Your task to perform on an android device: Search for coffee table on Crate & Barrel Image 0: 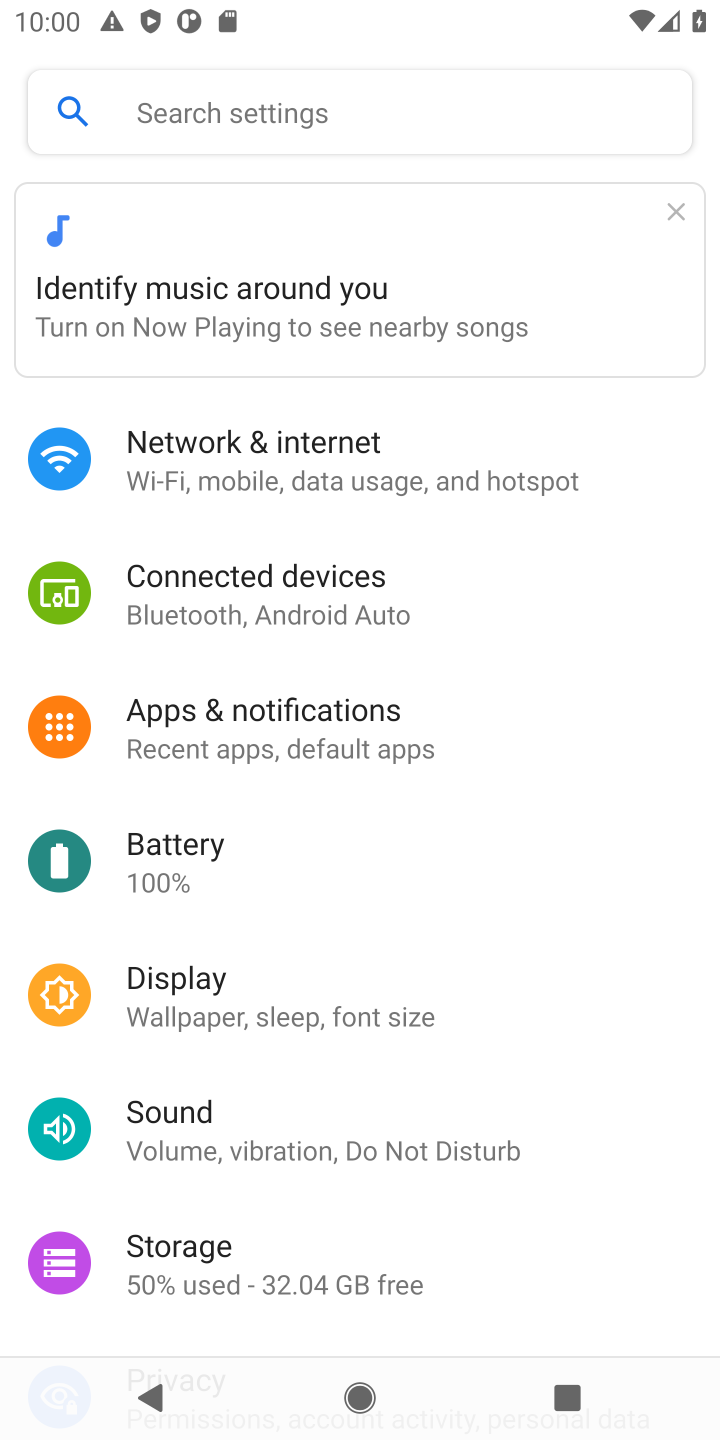
Step 0: press home button
Your task to perform on an android device: Search for coffee table on Crate & Barrel Image 1: 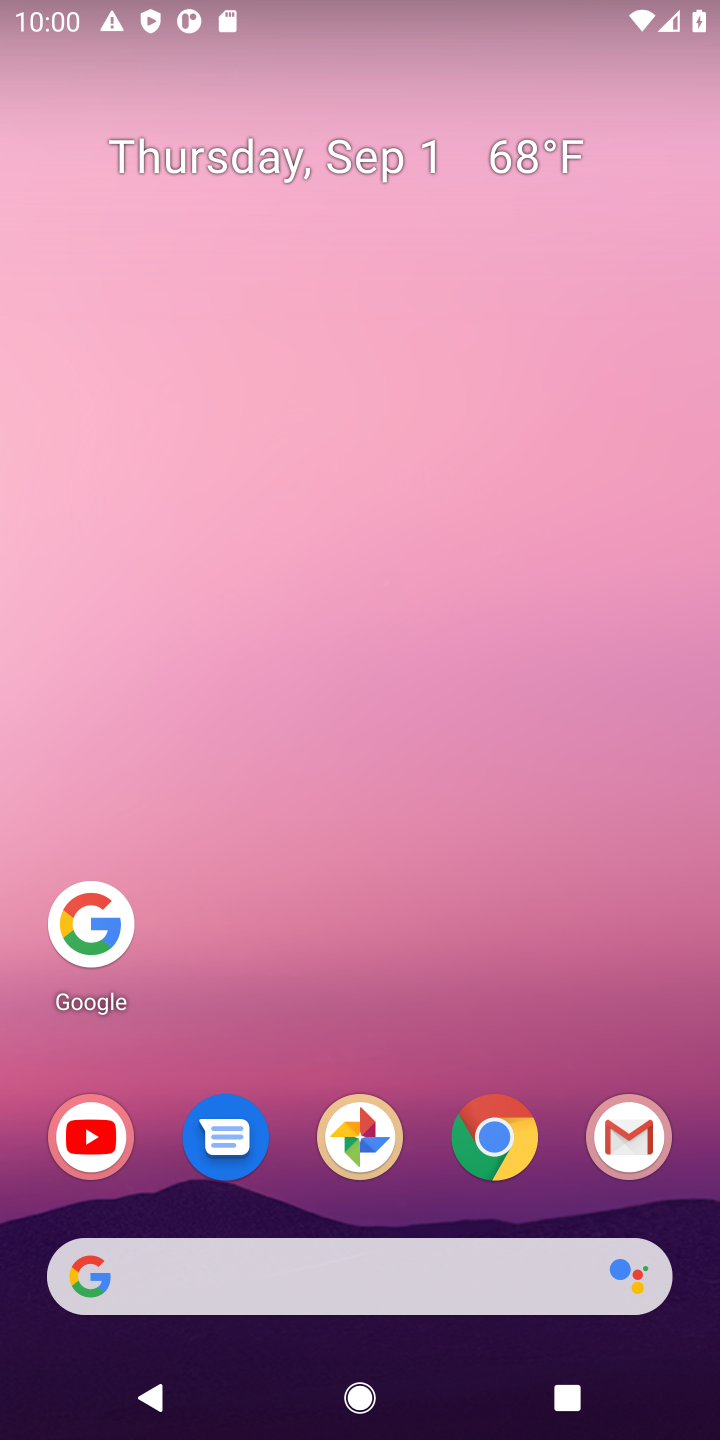
Step 1: click (99, 922)
Your task to perform on an android device: Search for coffee table on Crate & Barrel Image 2: 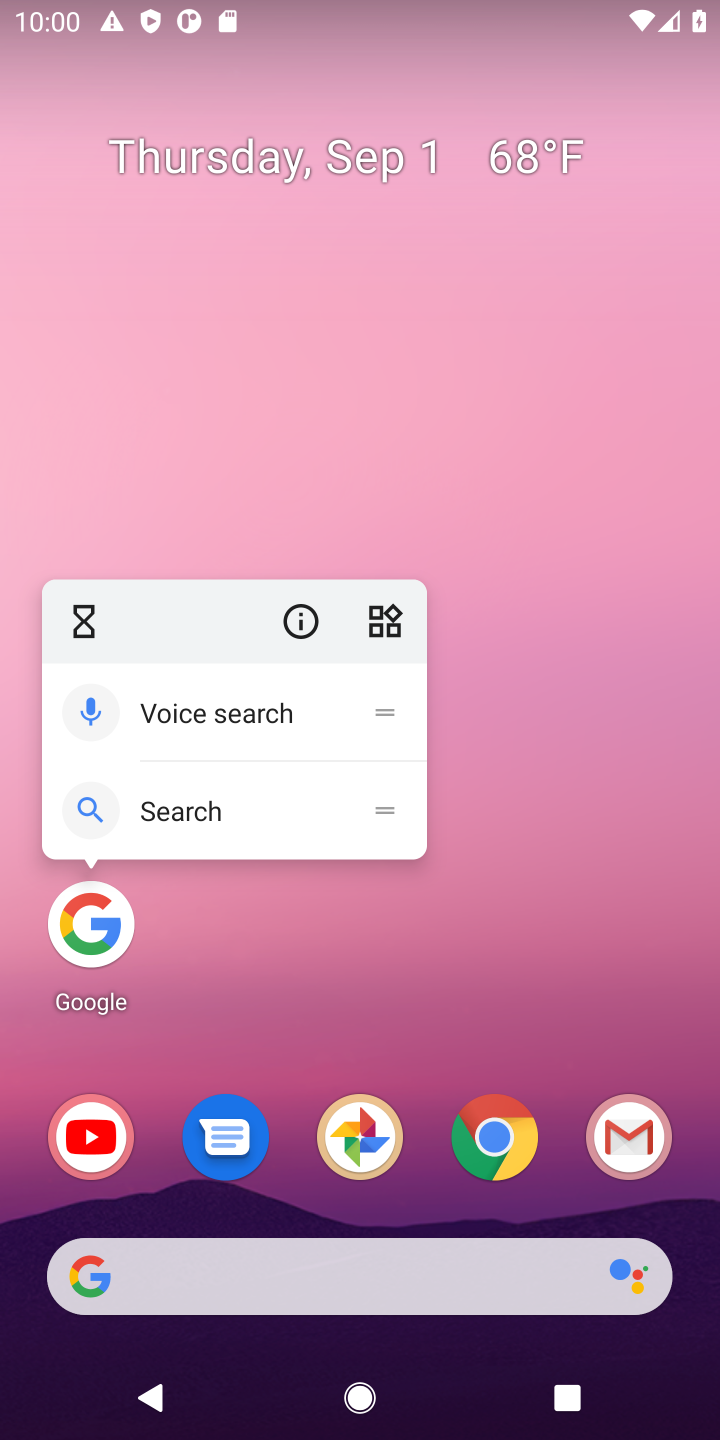
Step 2: click (79, 927)
Your task to perform on an android device: Search for coffee table on Crate & Barrel Image 3: 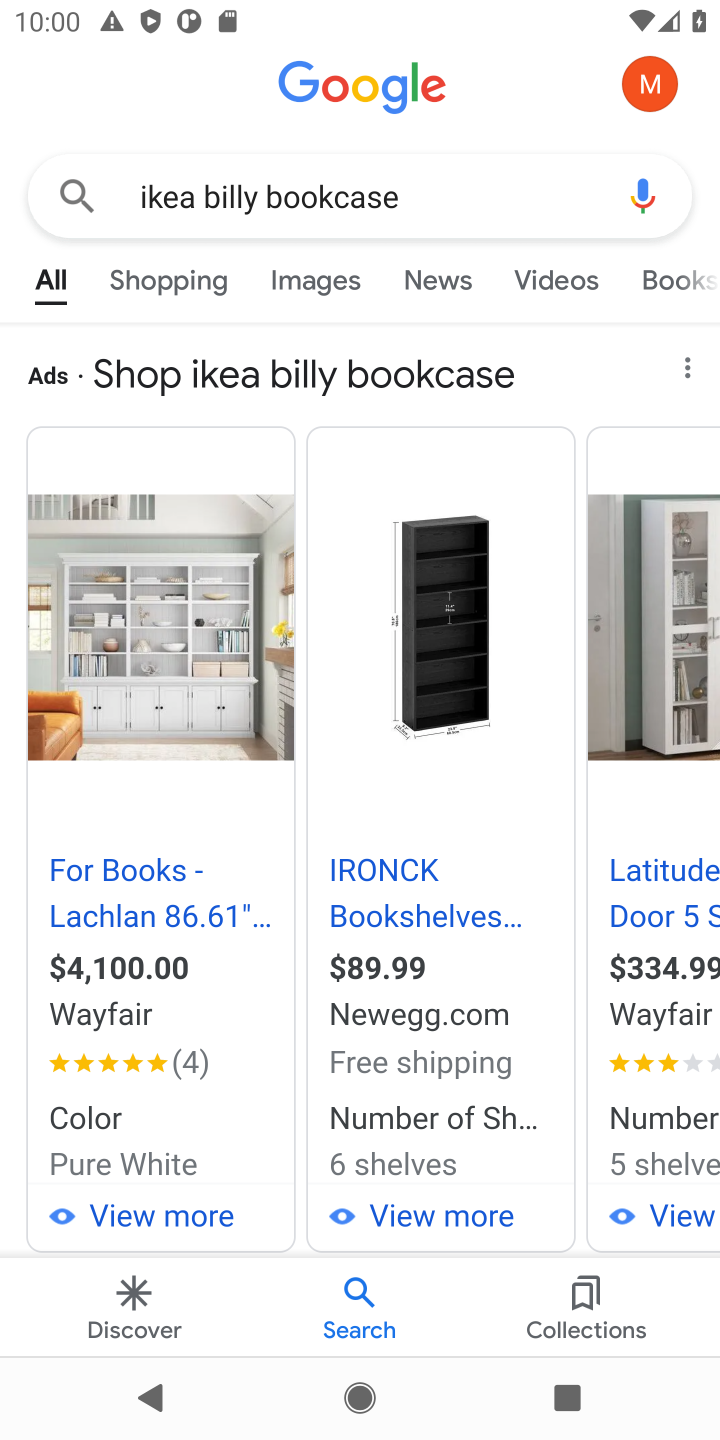
Step 3: click (441, 194)
Your task to perform on an android device: Search for coffee table on Crate & Barrel Image 4: 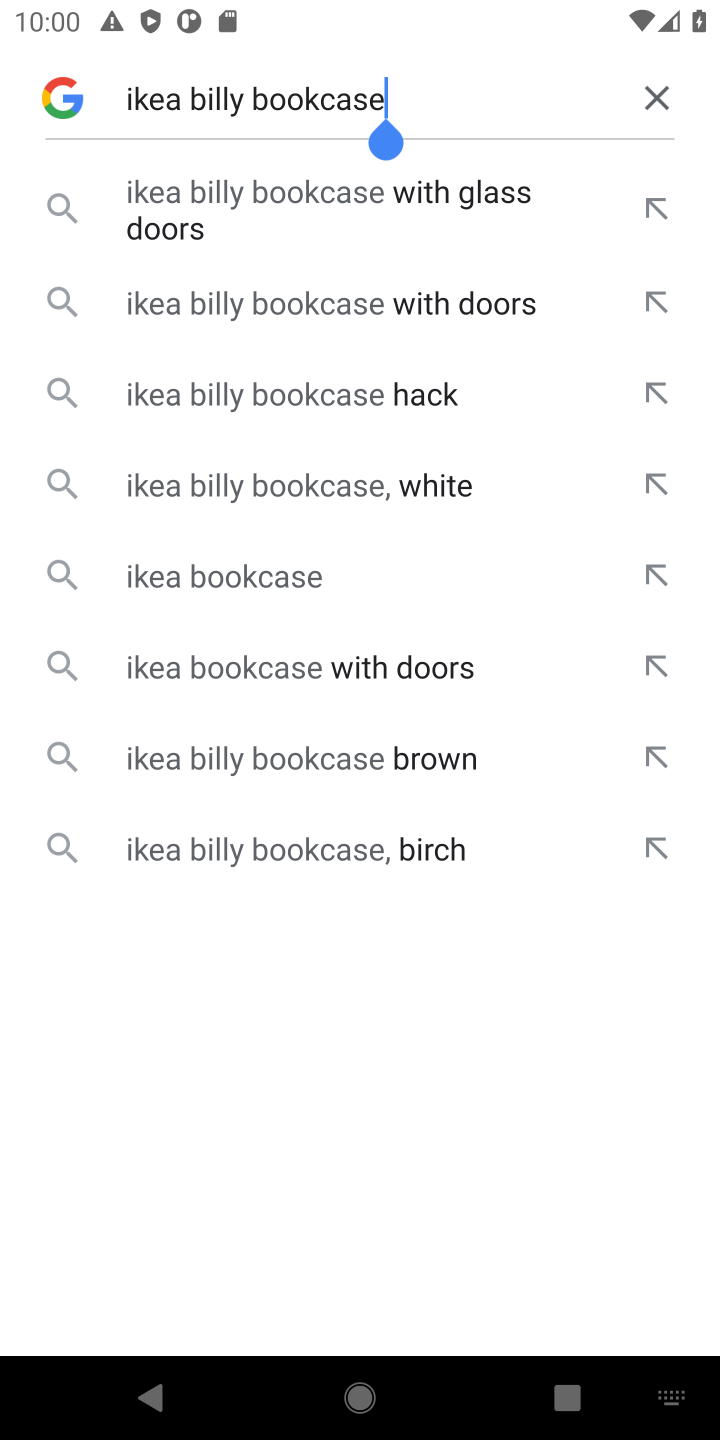
Step 4: click (656, 88)
Your task to perform on an android device: Search for coffee table on Crate & Barrel Image 5: 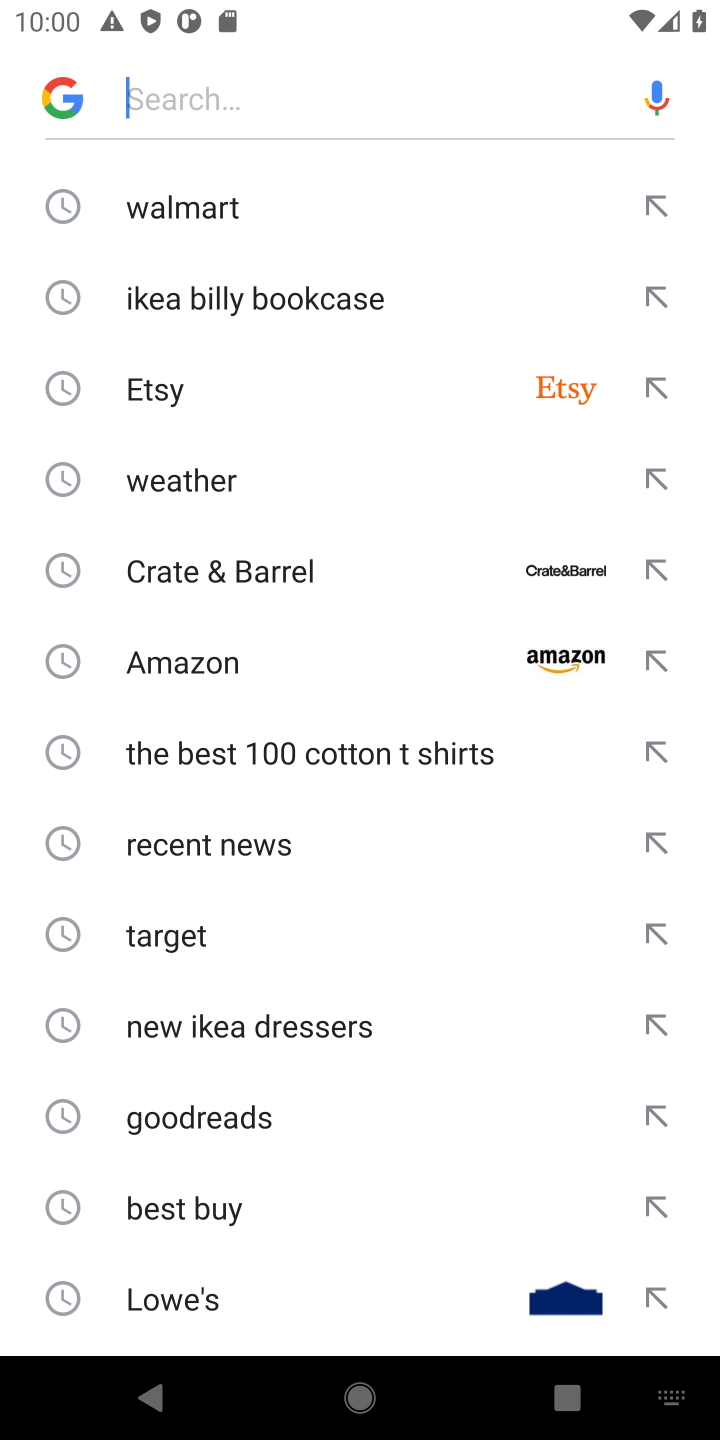
Step 5: click (189, 562)
Your task to perform on an android device: Search for coffee table on Crate & Barrel Image 6: 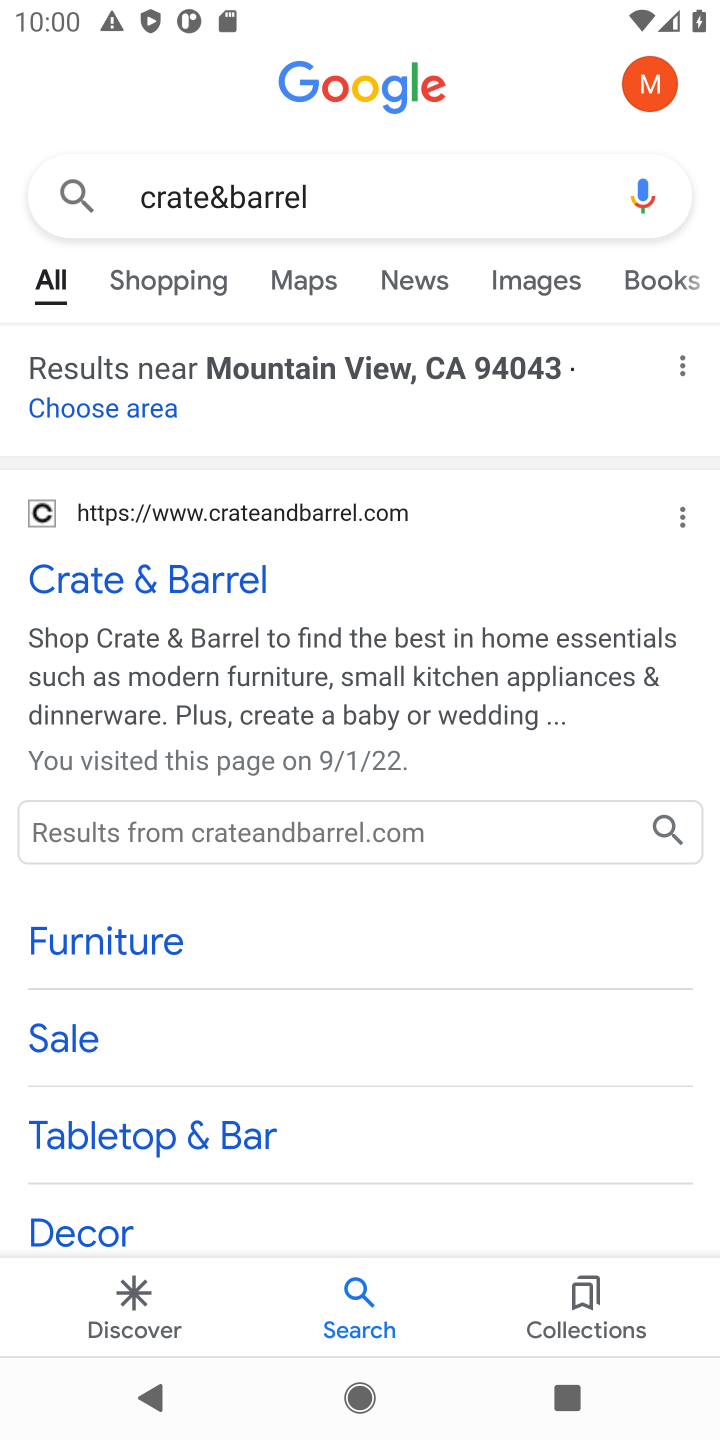
Step 6: click (144, 575)
Your task to perform on an android device: Search for coffee table on Crate & Barrel Image 7: 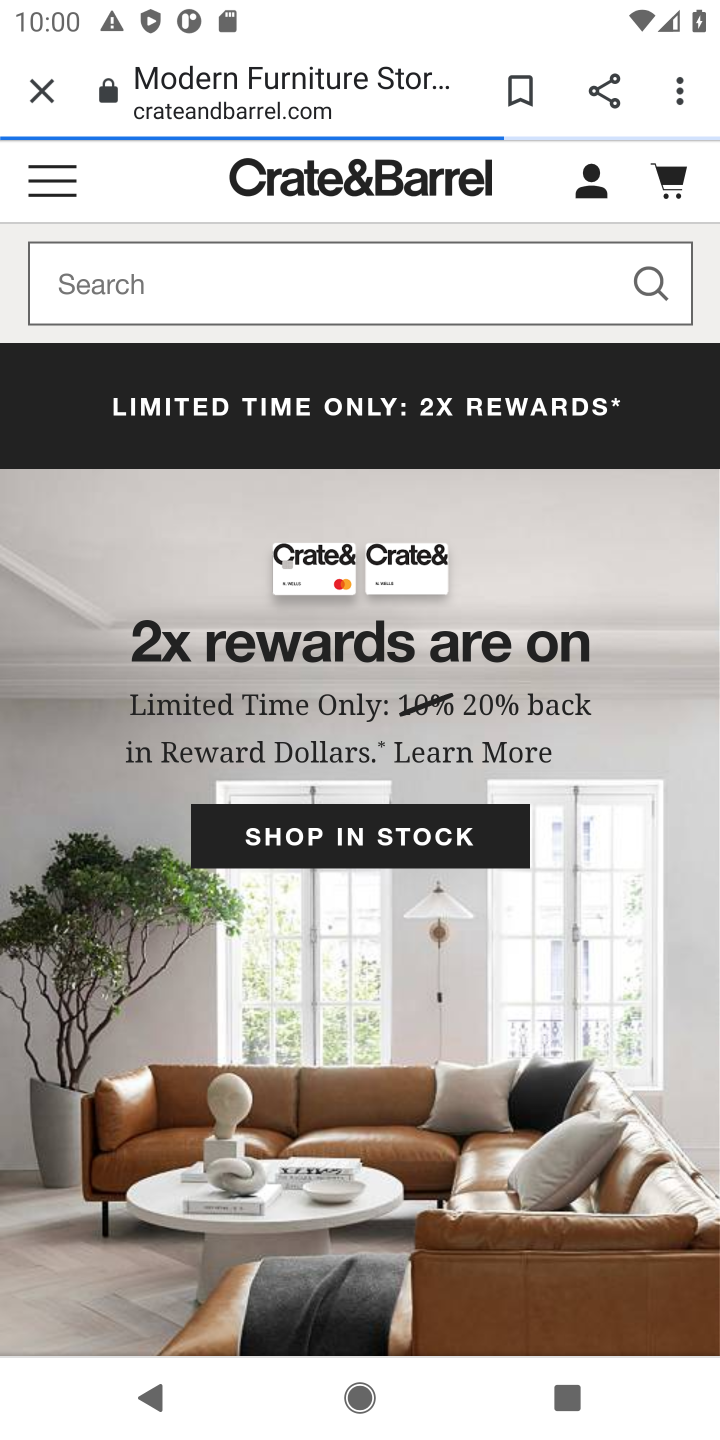
Step 7: click (331, 280)
Your task to perform on an android device: Search for coffee table on Crate & Barrel Image 8: 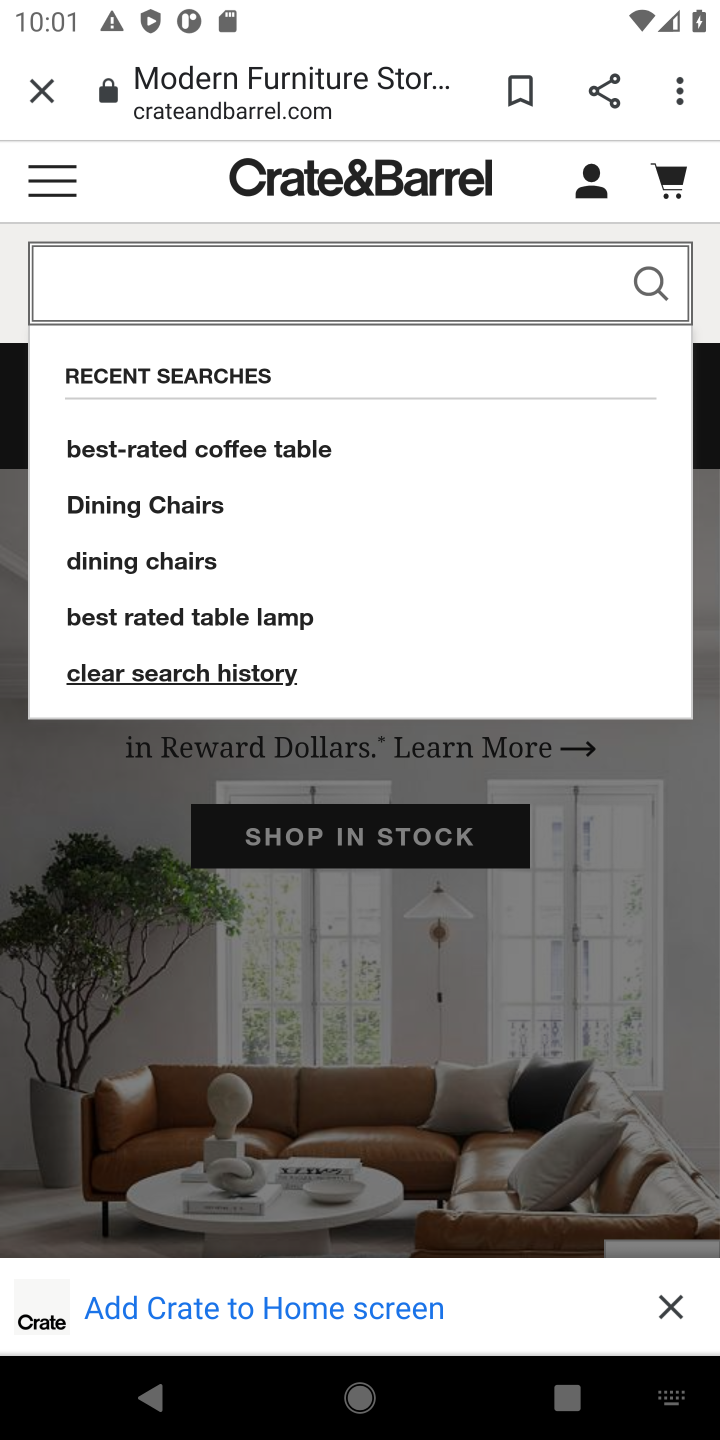
Step 8: type "coffee table"
Your task to perform on an android device: Search for coffee table on Crate & Barrel Image 9: 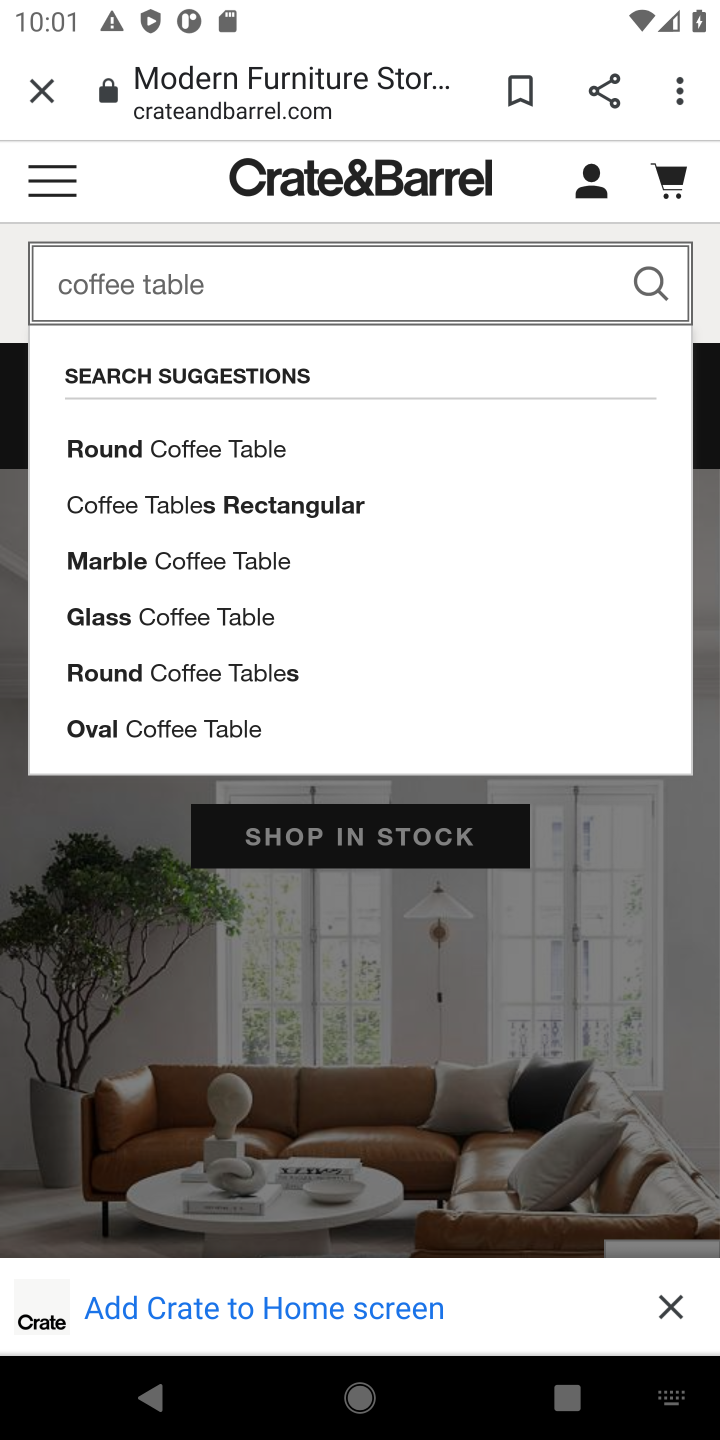
Step 9: click (643, 277)
Your task to perform on an android device: Search for coffee table on Crate & Barrel Image 10: 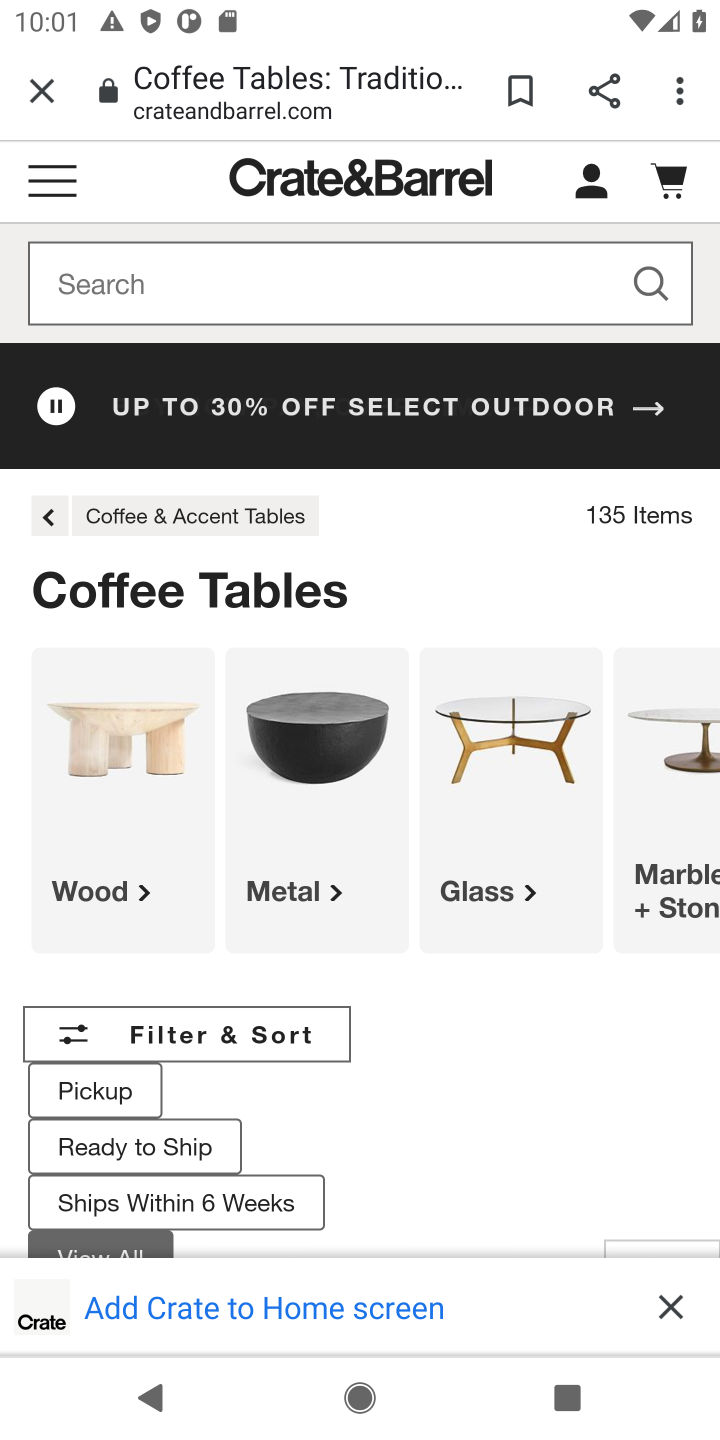
Step 10: task complete